Your task to perform on an android device: Open eBay Image 0: 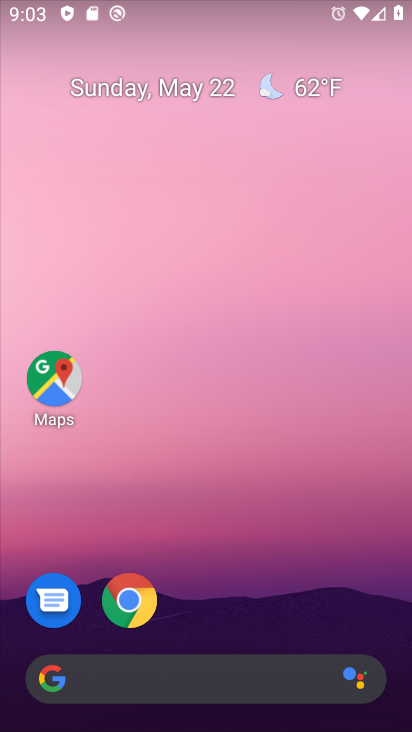
Step 0: drag from (251, 631) to (223, 77)
Your task to perform on an android device: Open eBay Image 1: 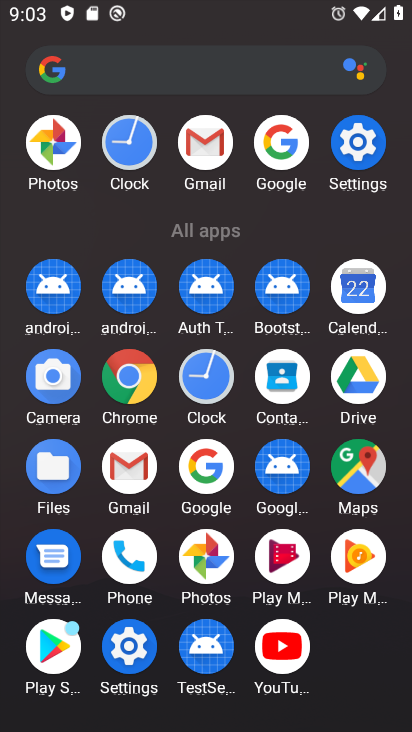
Step 1: click (203, 467)
Your task to perform on an android device: Open eBay Image 2: 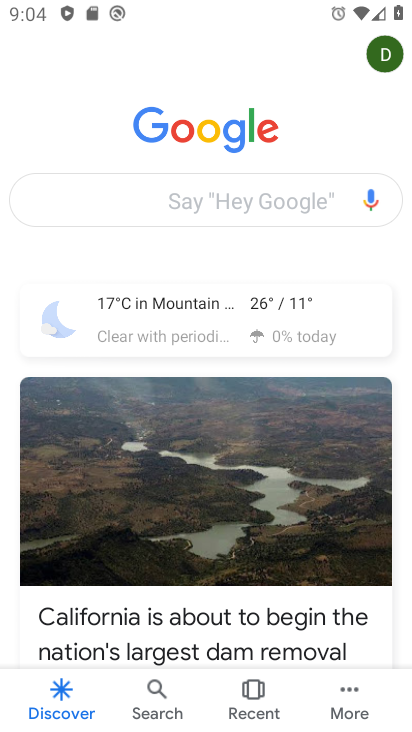
Step 2: click (176, 203)
Your task to perform on an android device: Open eBay Image 3: 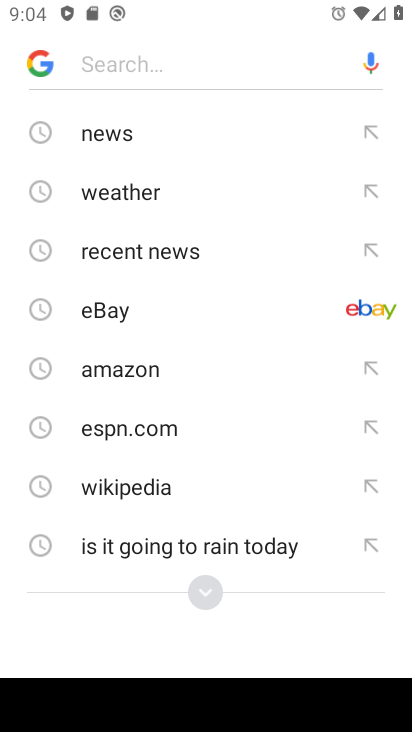
Step 3: click (149, 67)
Your task to perform on an android device: Open eBay Image 4: 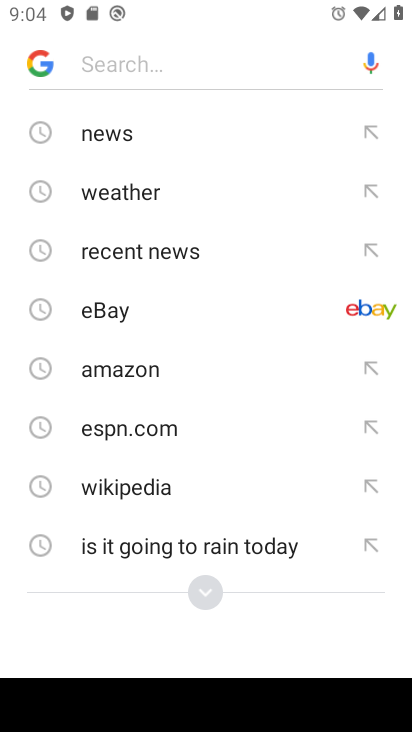
Step 4: type "eBay"
Your task to perform on an android device: Open eBay Image 5: 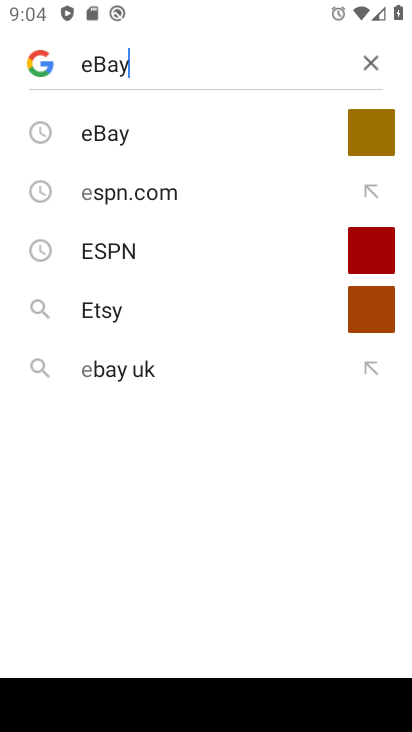
Step 5: type ""
Your task to perform on an android device: Open eBay Image 6: 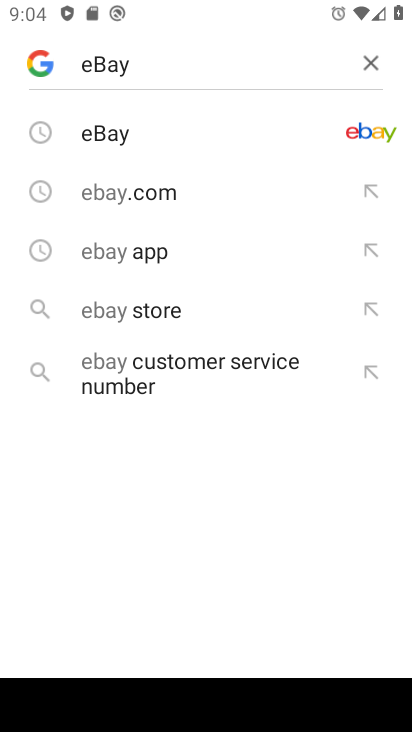
Step 6: click (320, 128)
Your task to perform on an android device: Open eBay Image 7: 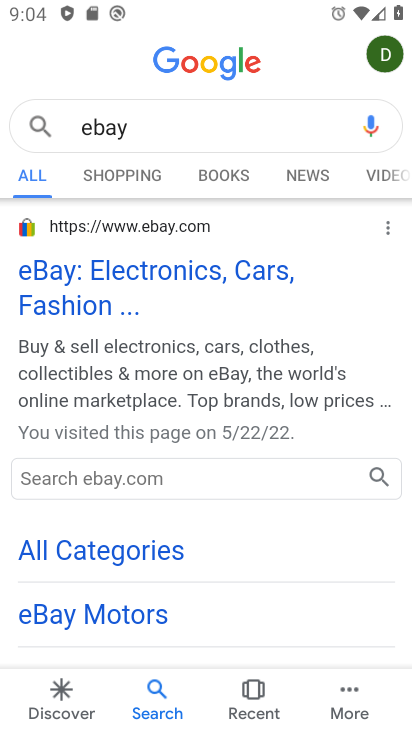
Step 7: click (130, 268)
Your task to perform on an android device: Open eBay Image 8: 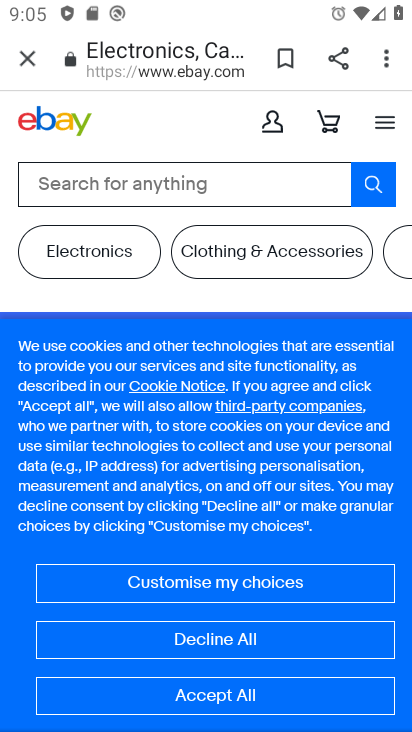
Step 8: task complete